Your task to perform on an android device: turn on javascript in the chrome app Image 0: 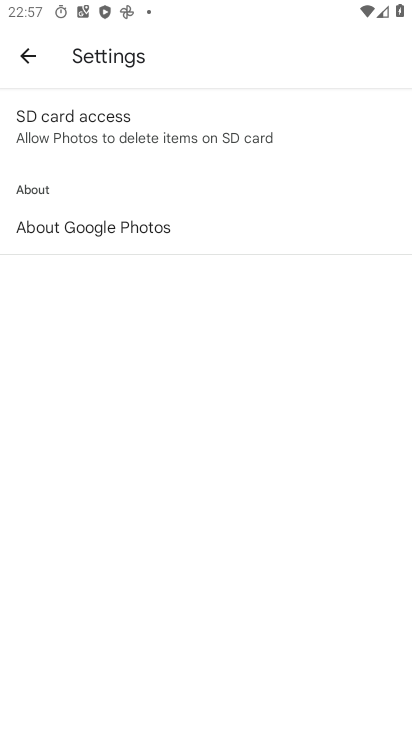
Step 0: press home button
Your task to perform on an android device: turn on javascript in the chrome app Image 1: 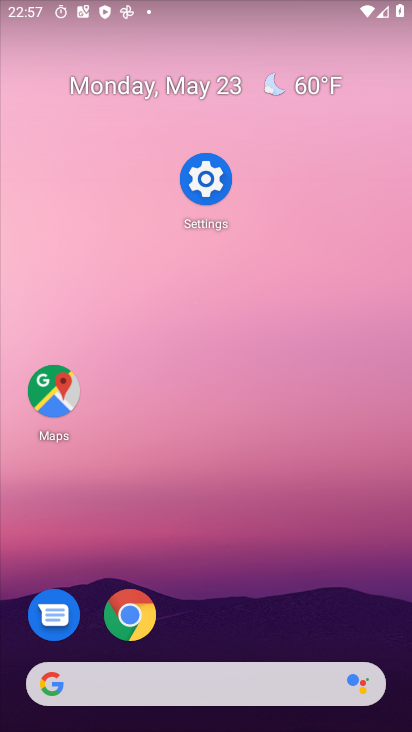
Step 1: click (130, 615)
Your task to perform on an android device: turn on javascript in the chrome app Image 2: 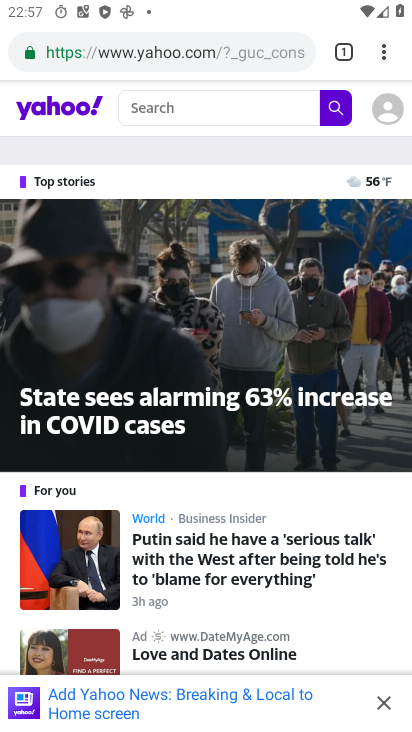
Step 2: click (375, 55)
Your task to perform on an android device: turn on javascript in the chrome app Image 3: 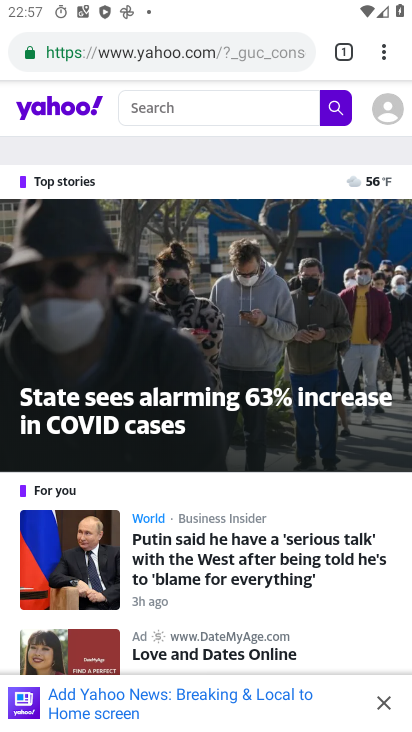
Step 3: click (375, 55)
Your task to perform on an android device: turn on javascript in the chrome app Image 4: 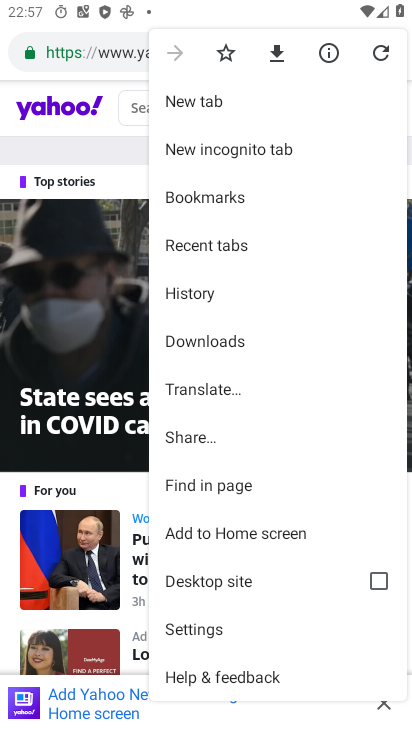
Step 4: click (227, 632)
Your task to perform on an android device: turn on javascript in the chrome app Image 5: 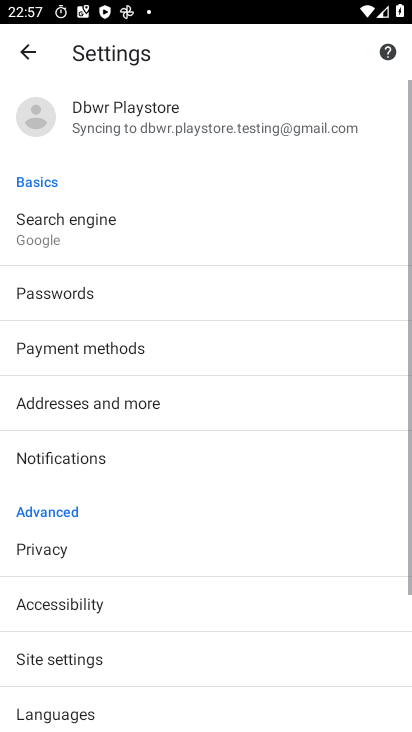
Step 5: drag from (236, 505) to (246, 309)
Your task to perform on an android device: turn on javascript in the chrome app Image 6: 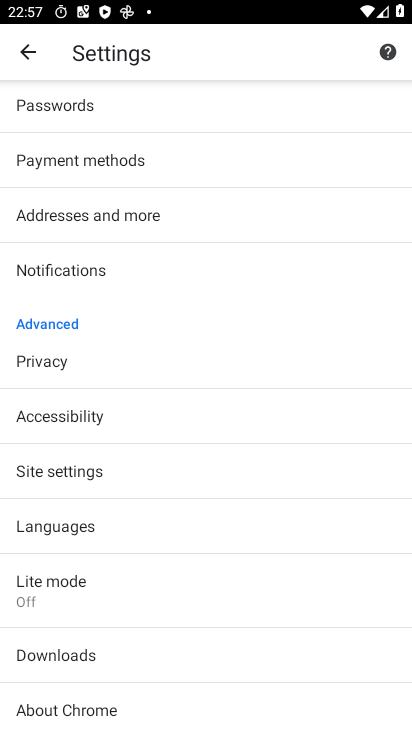
Step 6: click (84, 467)
Your task to perform on an android device: turn on javascript in the chrome app Image 7: 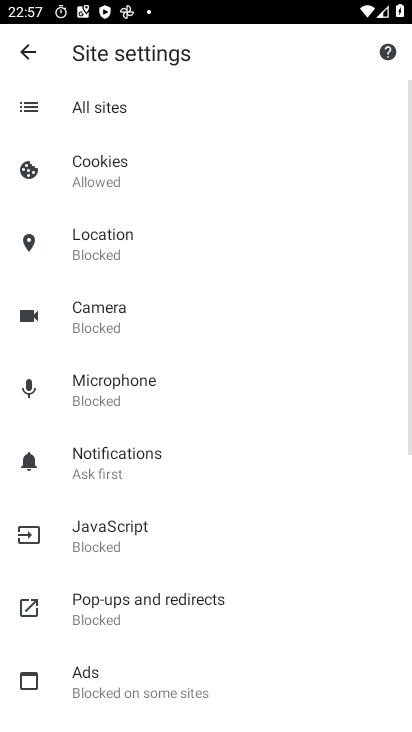
Step 7: click (142, 526)
Your task to perform on an android device: turn on javascript in the chrome app Image 8: 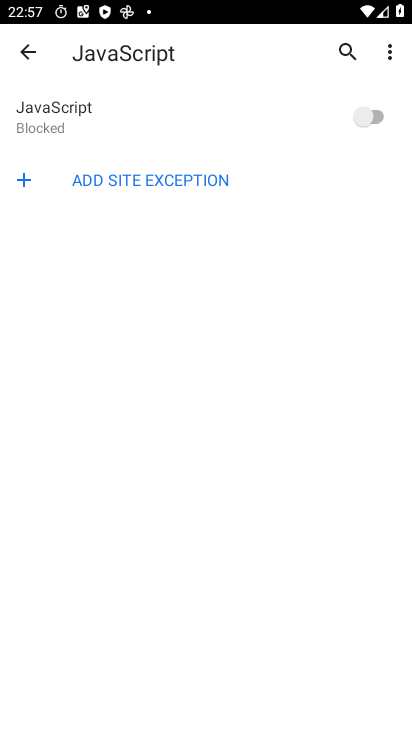
Step 8: click (376, 108)
Your task to perform on an android device: turn on javascript in the chrome app Image 9: 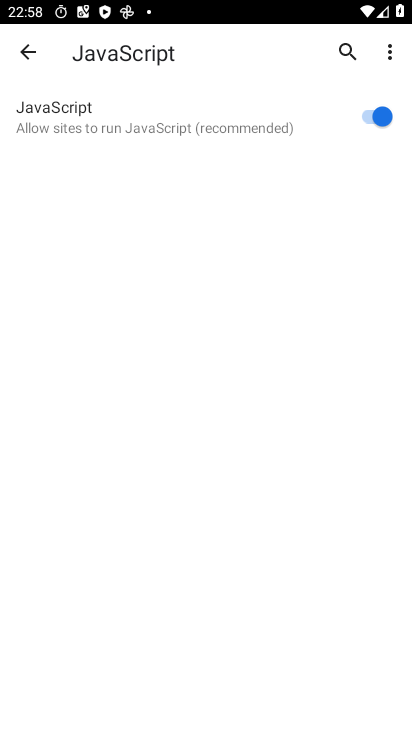
Step 9: task complete